Your task to perform on an android device: Open calendar and show me the fourth week of next month Image 0: 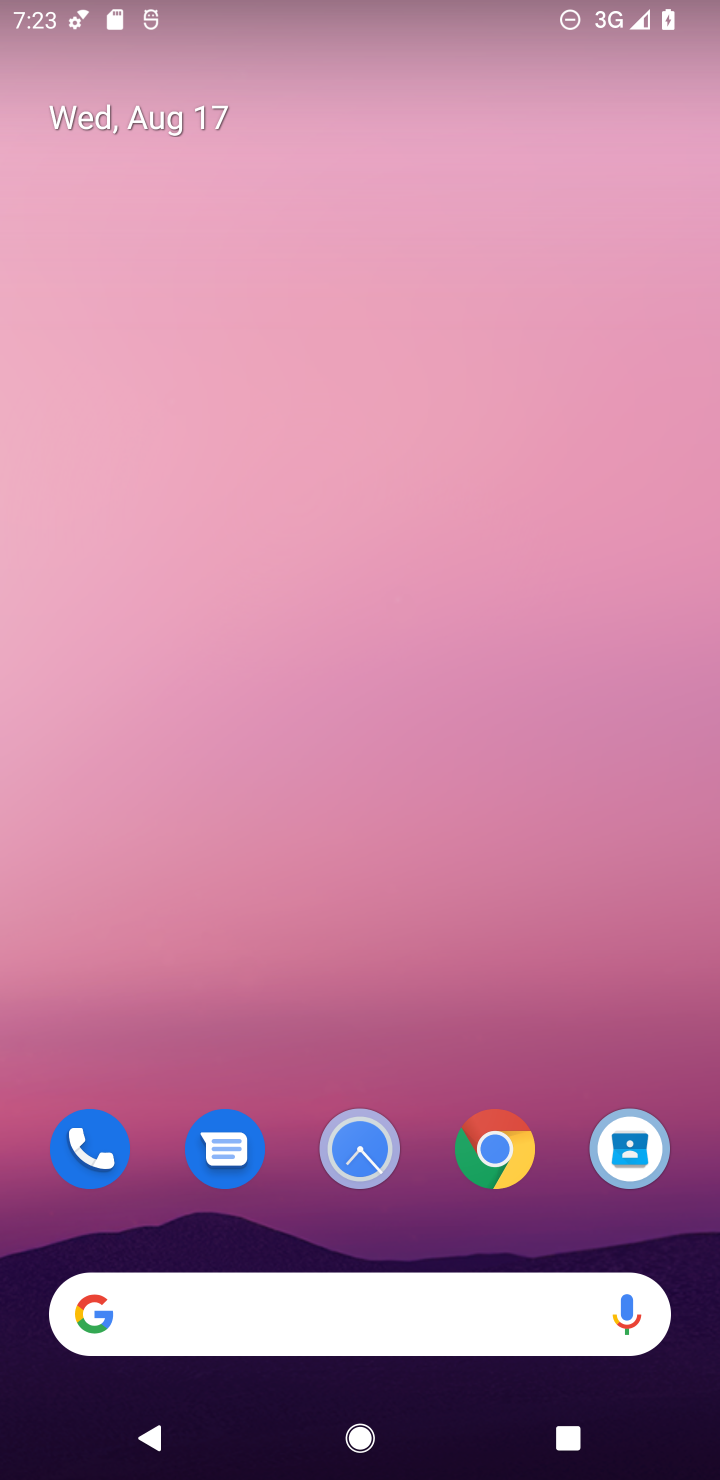
Step 0: drag from (403, 1017) to (385, 182)
Your task to perform on an android device: Open calendar and show me the fourth week of next month Image 1: 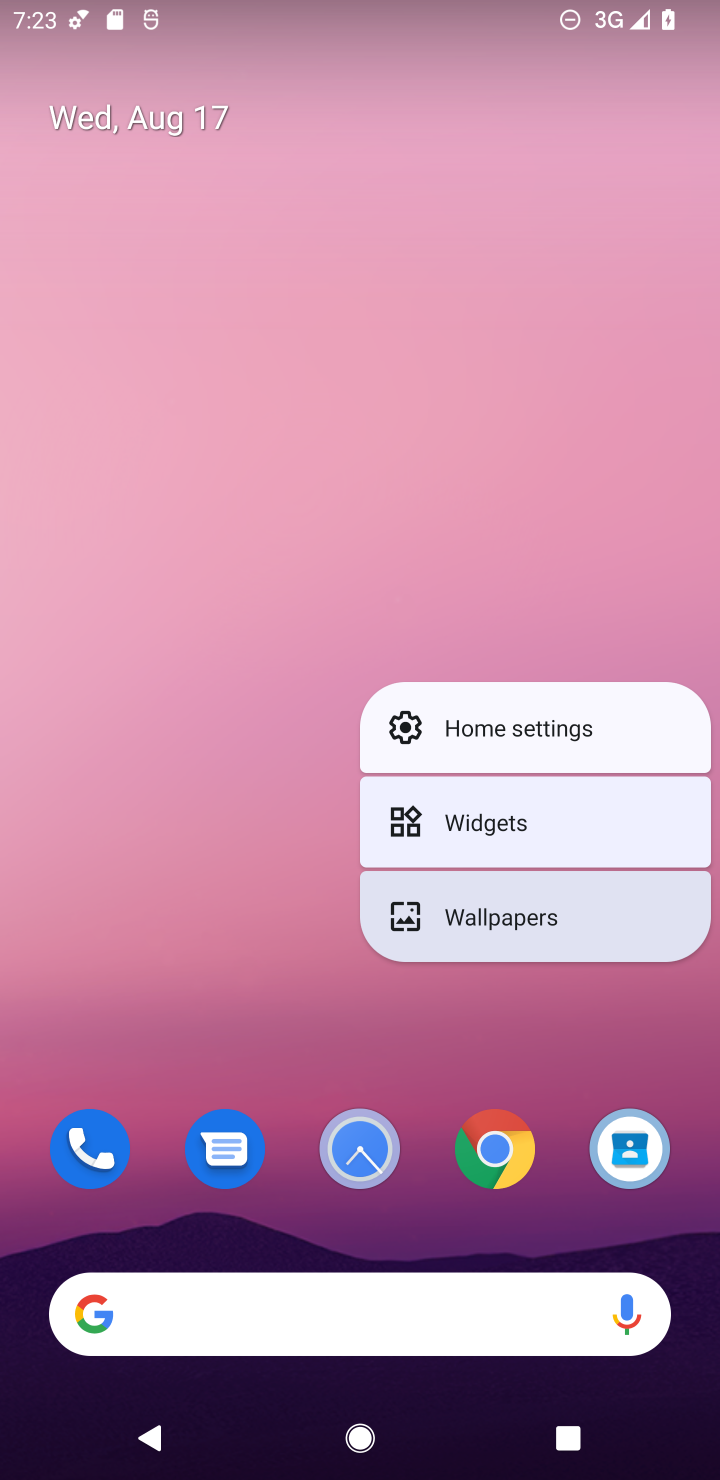
Step 1: click (206, 934)
Your task to perform on an android device: Open calendar and show me the fourth week of next month Image 2: 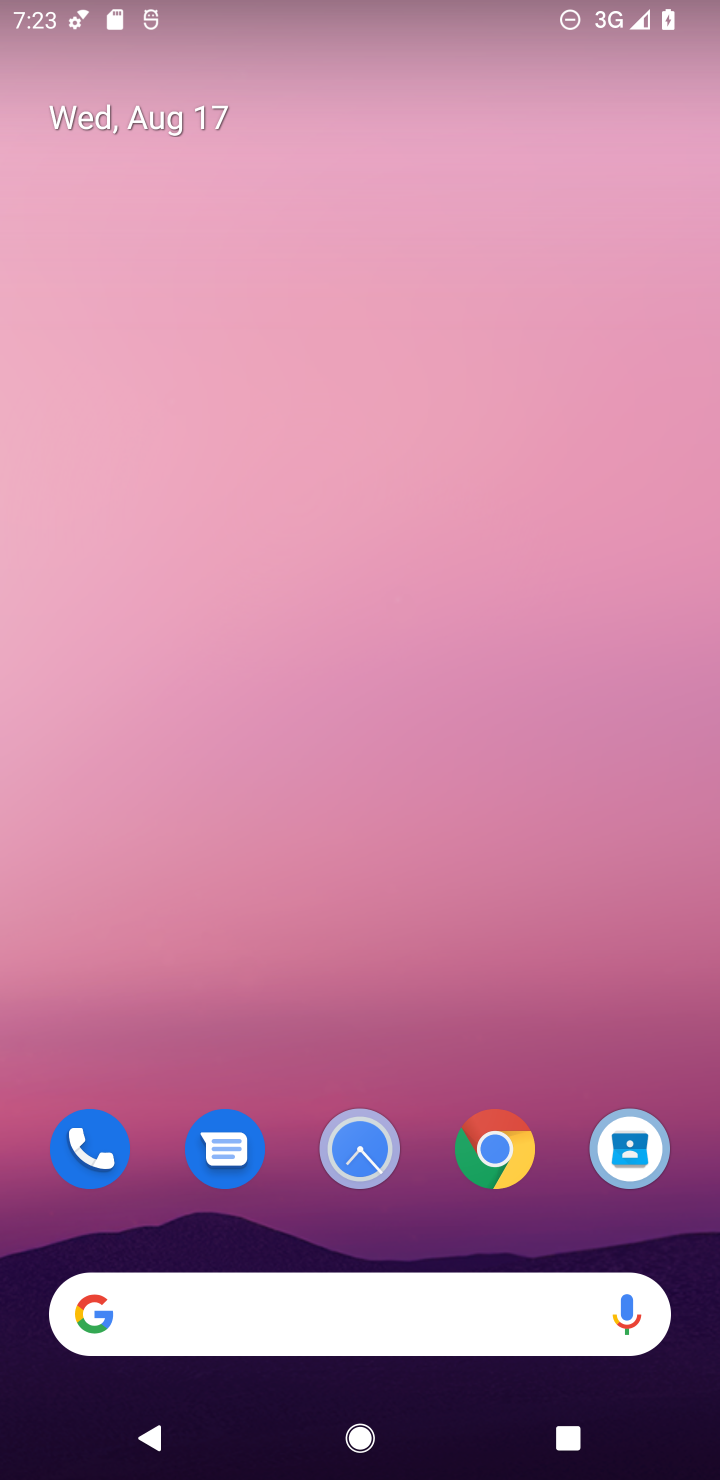
Step 2: drag from (433, 1240) to (414, 267)
Your task to perform on an android device: Open calendar and show me the fourth week of next month Image 3: 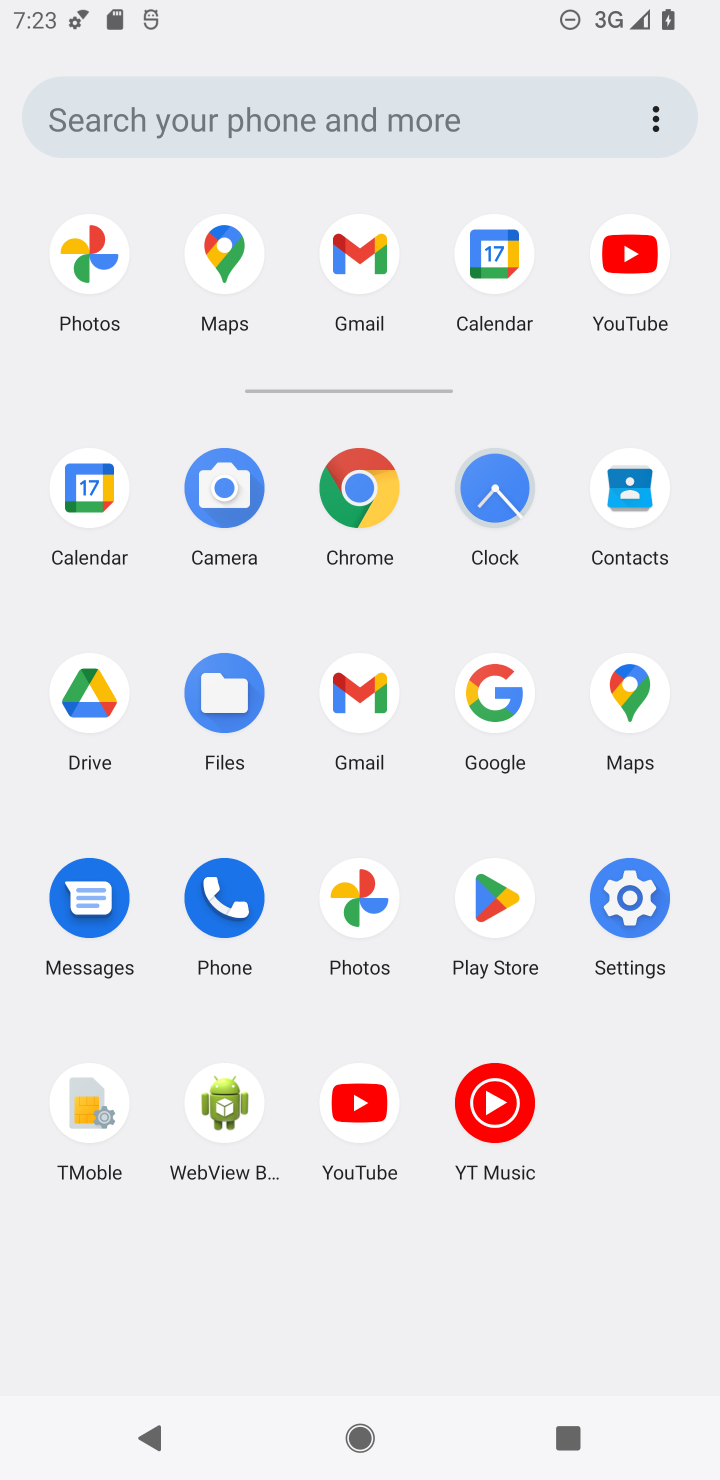
Step 3: click (496, 249)
Your task to perform on an android device: Open calendar and show me the fourth week of next month Image 4: 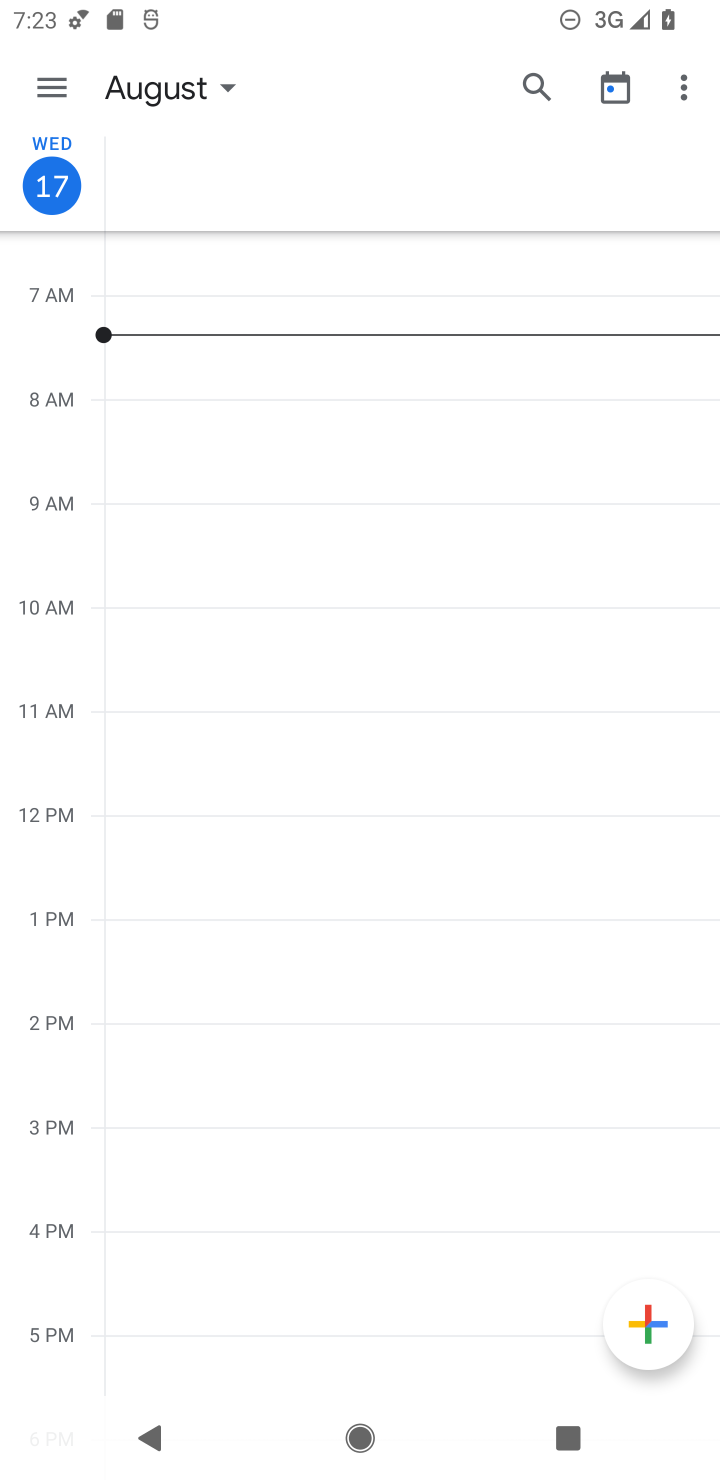
Step 4: click (48, 83)
Your task to perform on an android device: Open calendar and show me the fourth week of next month Image 5: 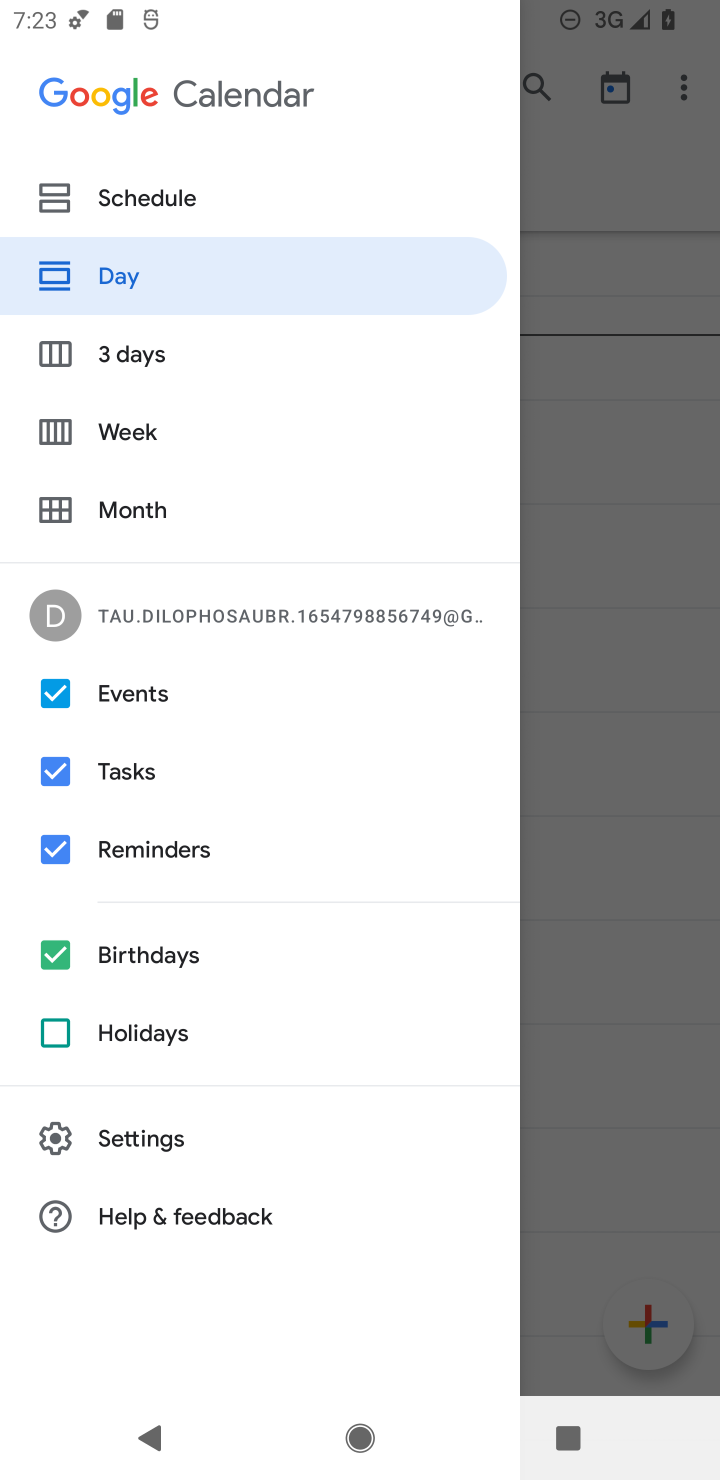
Step 5: click (112, 422)
Your task to perform on an android device: Open calendar and show me the fourth week of next month Image 6: 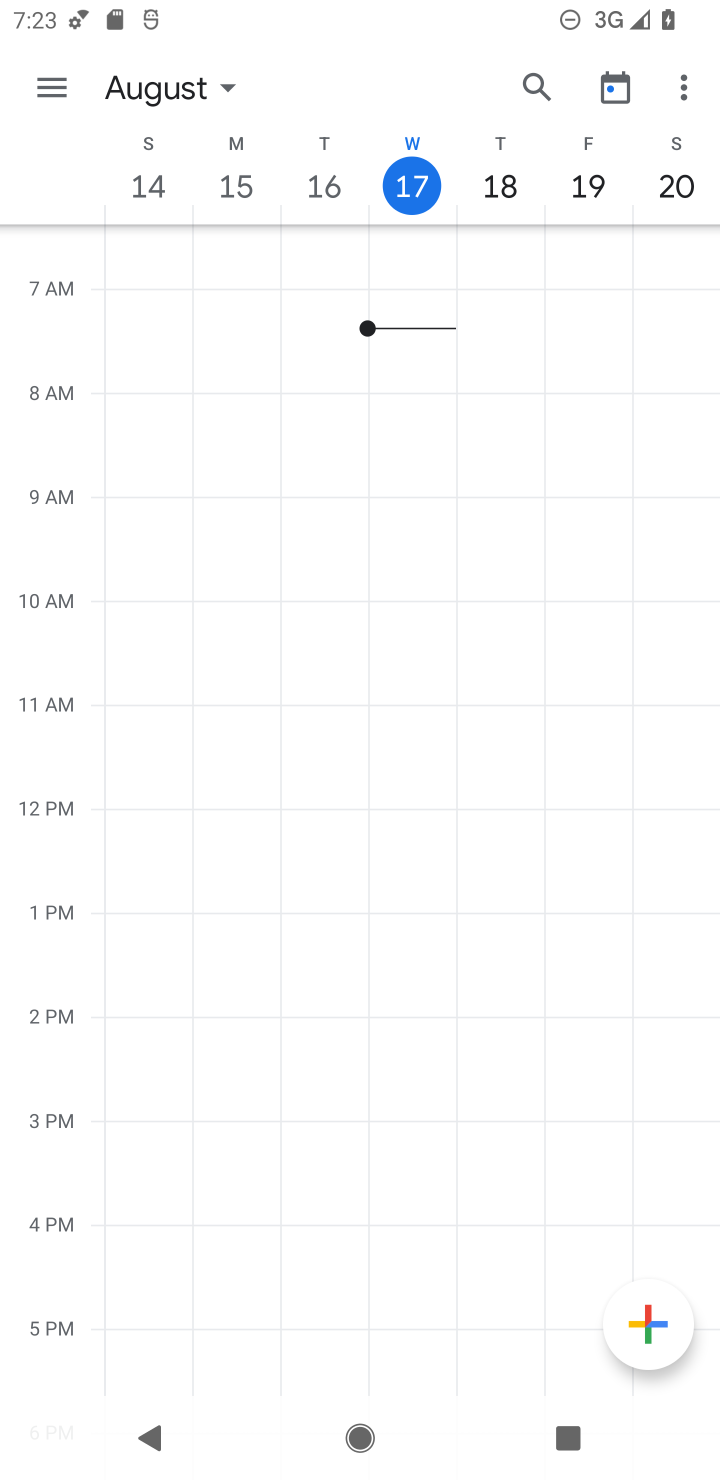
Step 6: click (227, 87)
Your task to perform on an android device: Open calendar and show me the fourth week of next month Image 7: 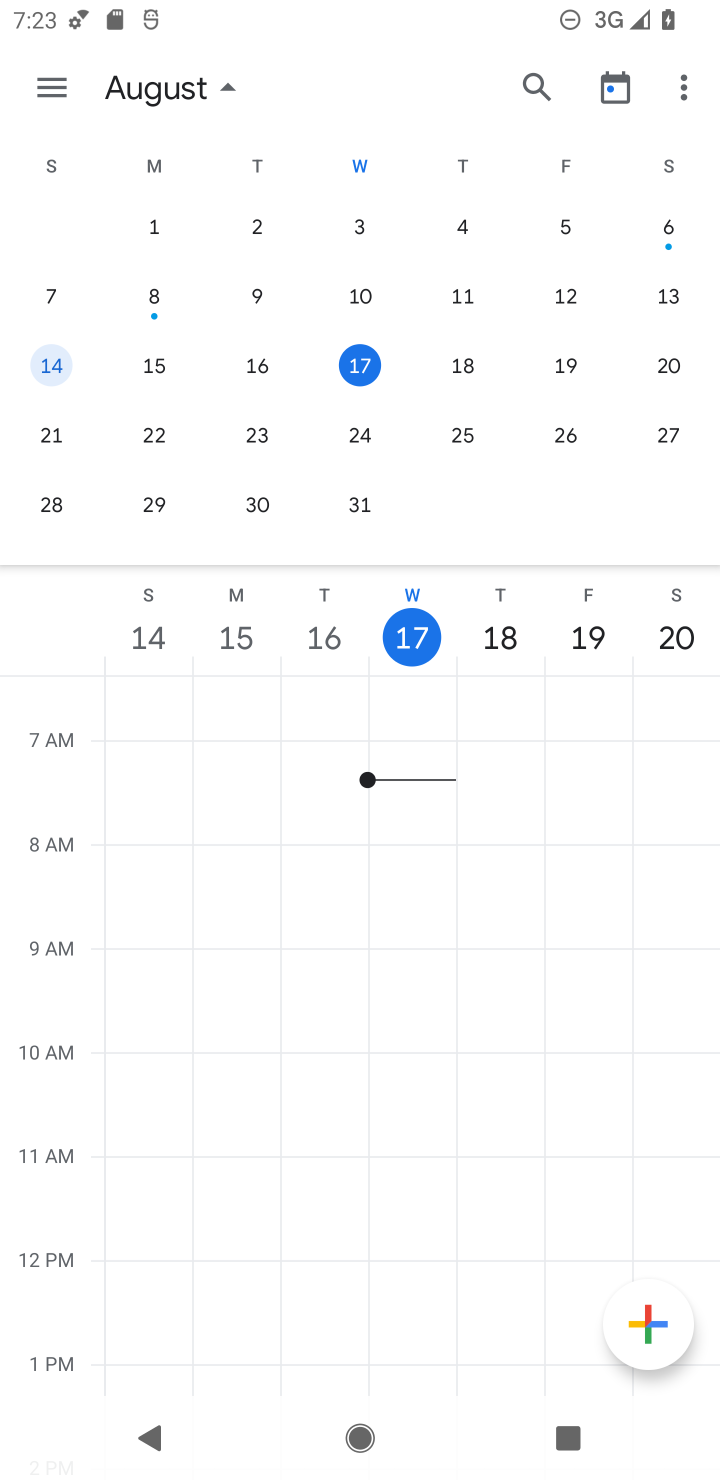
Step 7: drag from (658, 360) to (126, 313)
Your task to perform on an android device: Open calendar and show me the fourth week of next month Image 8: 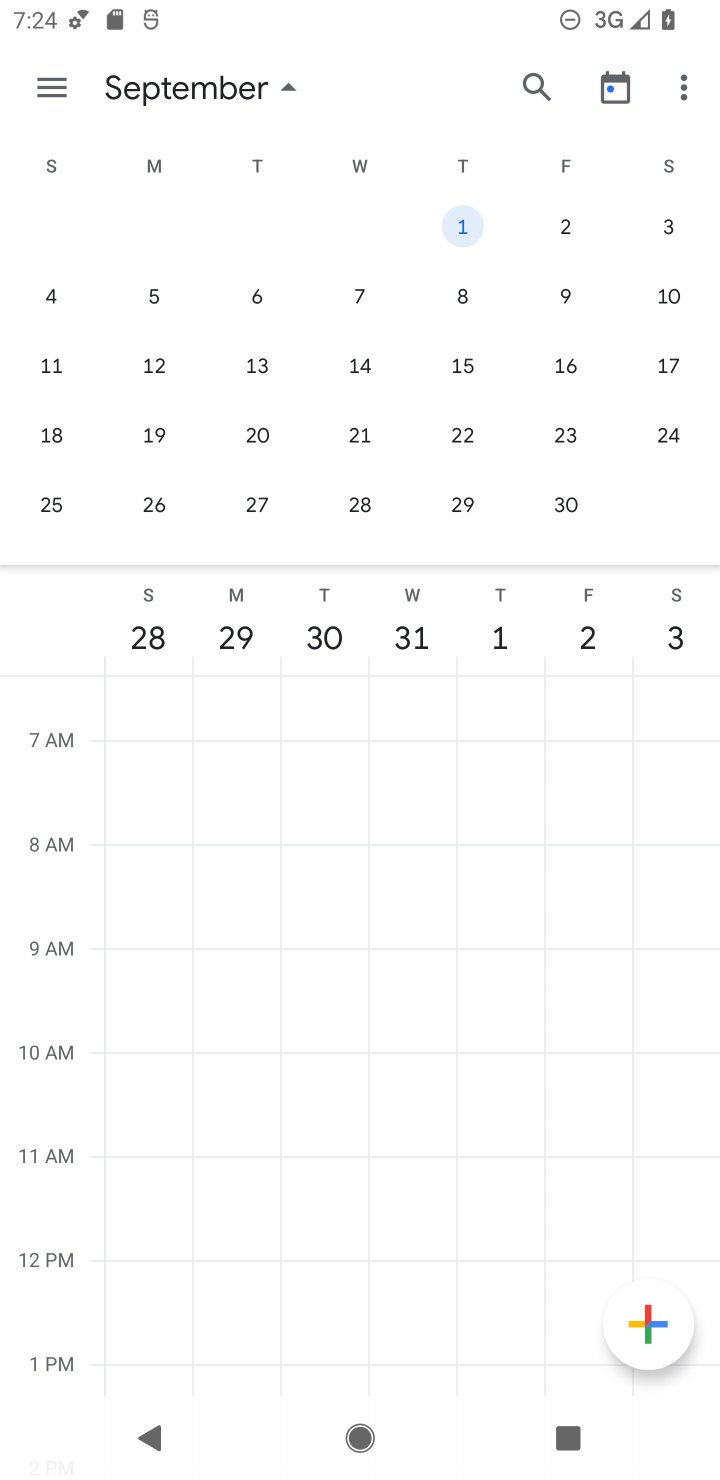
Step 8: click (459, 438)
Your task to perform on an android device: Open calendar and show me the fourth week of next month Image 9: 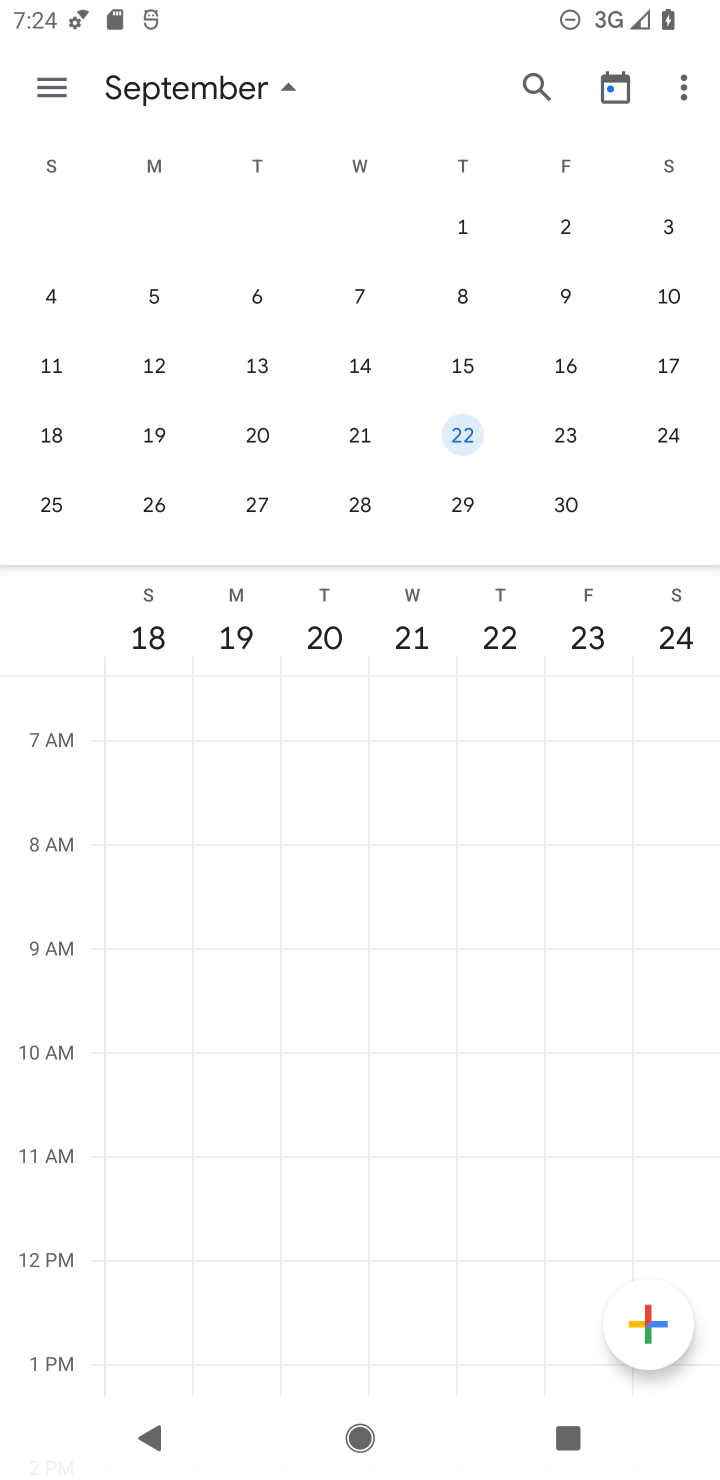
Step 9: task complete